Your task to perform on an android device: Search for the new ikea dresser Image 0: 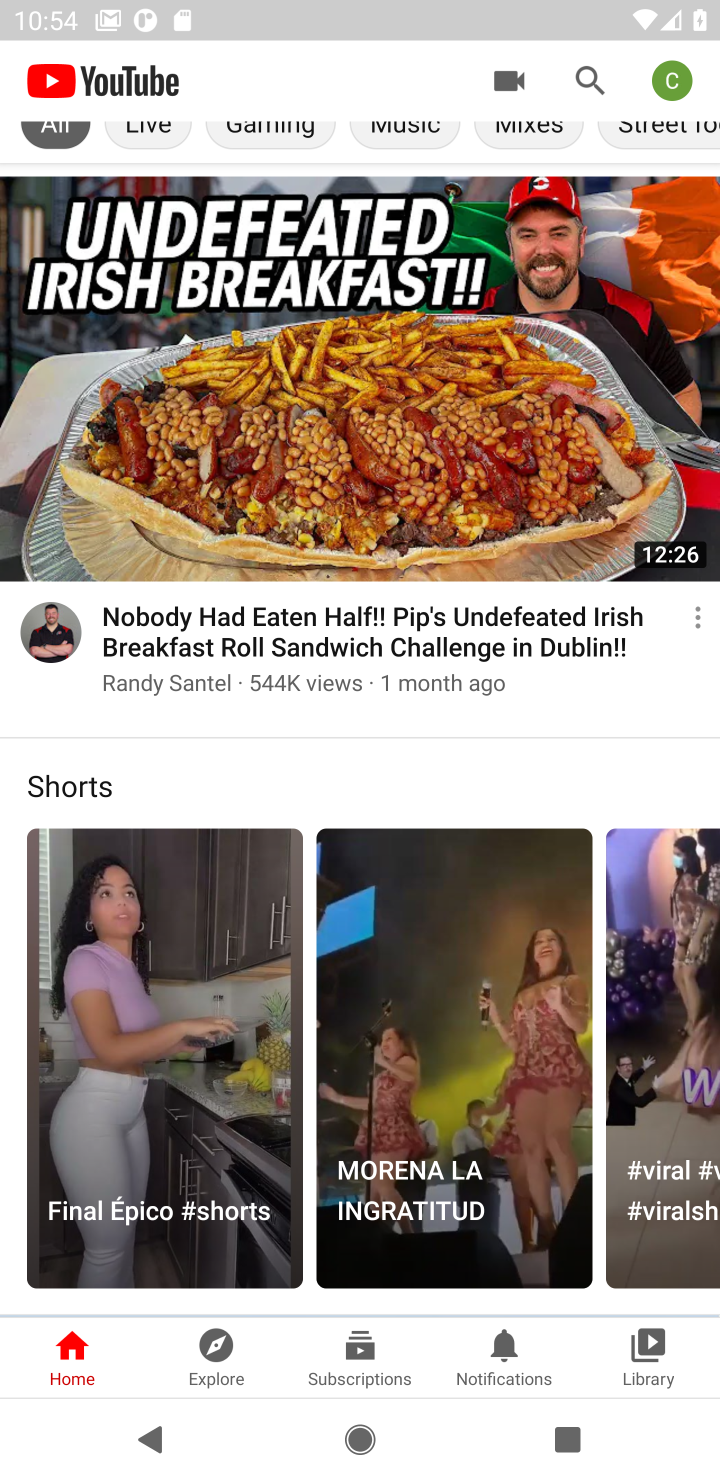
Step 0: press home button
Your task to perform on an android device: Search for the new ikea dresser Image 1: 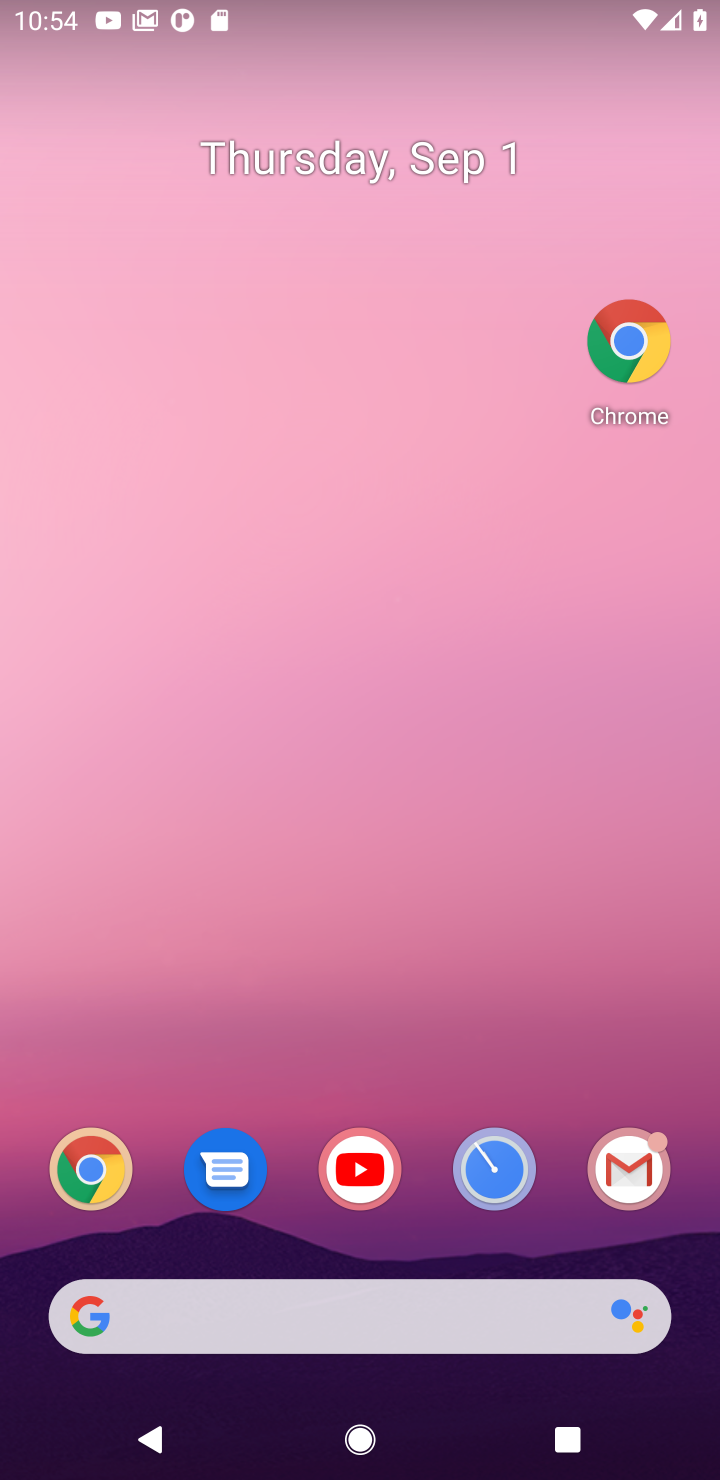
Step 1: drag from (418, 900) to (440, 93)
Your task to perform on an android device: Search for the new ikea dresser Image 2: 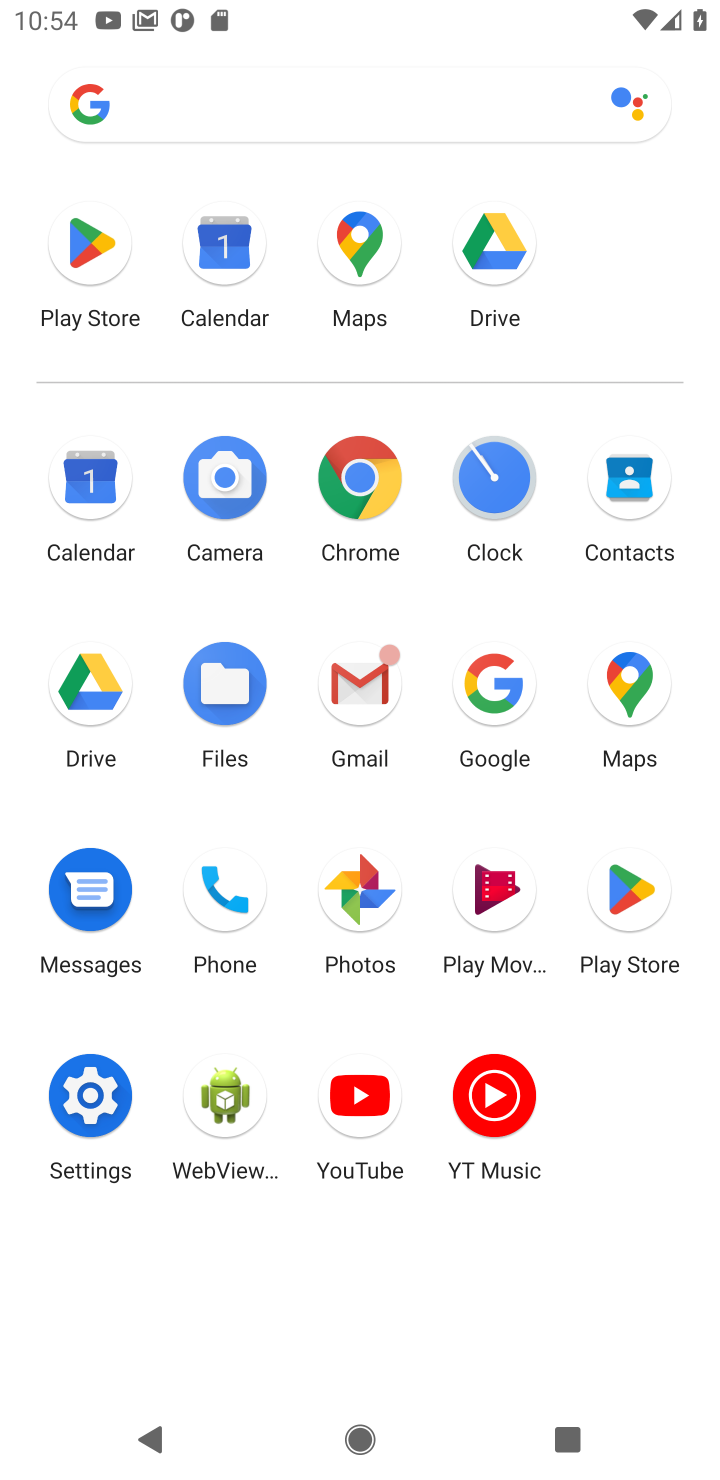
Step 2: click (359, 468)
Your task to perform on an android device: Search for the new ikea dresser Image 3: 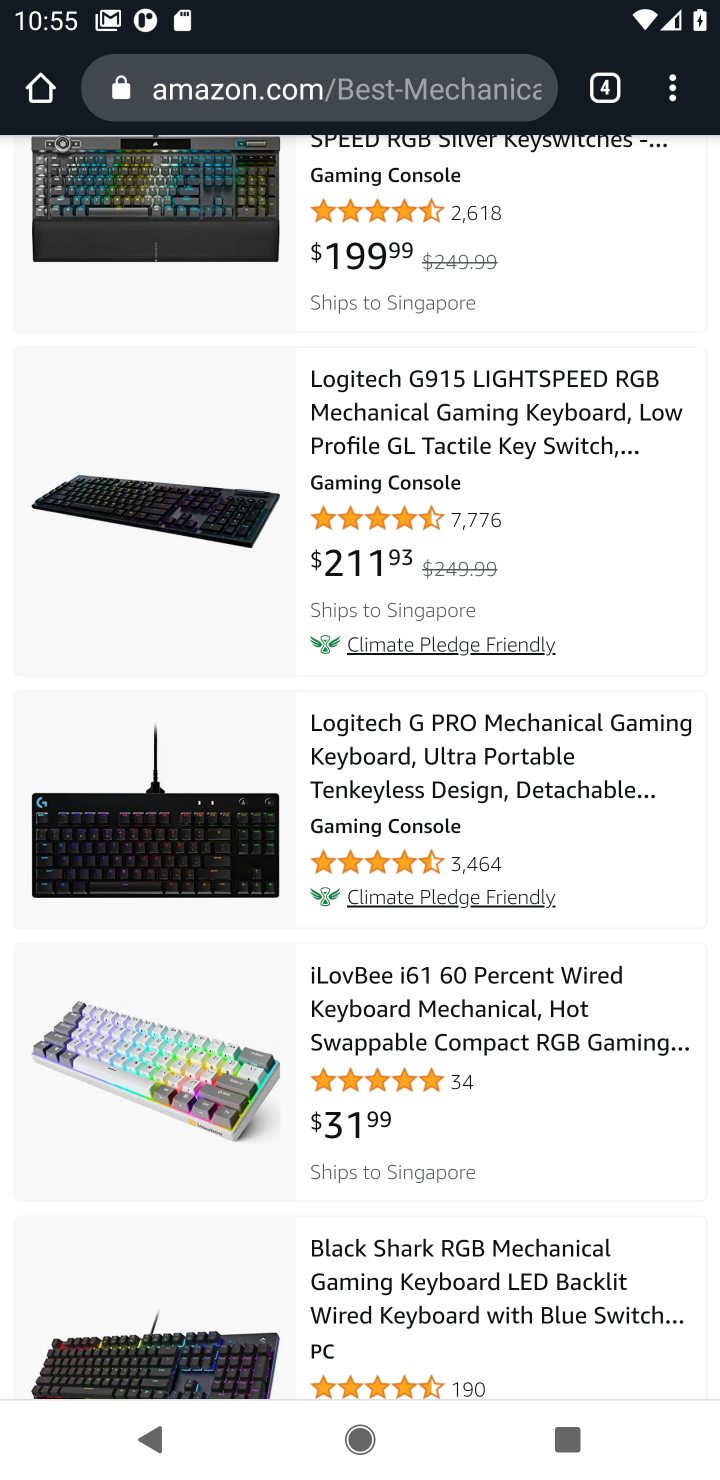
Step 3: press home button
Your task to perform on an android device: Search for the new ikea dresser Image 4: 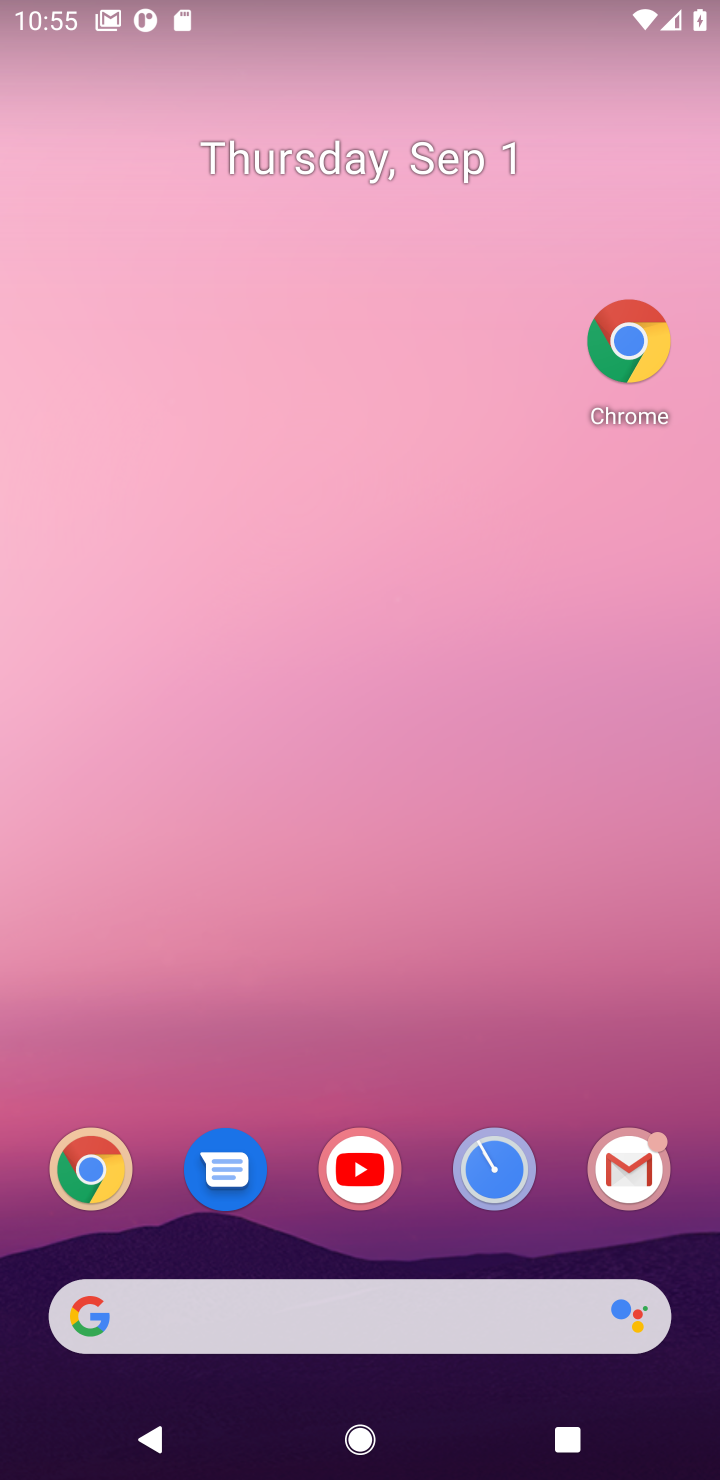
Step 4: click (624, 341)
Your task to perform on an android device: Search for the new ikea dresser Image 5: 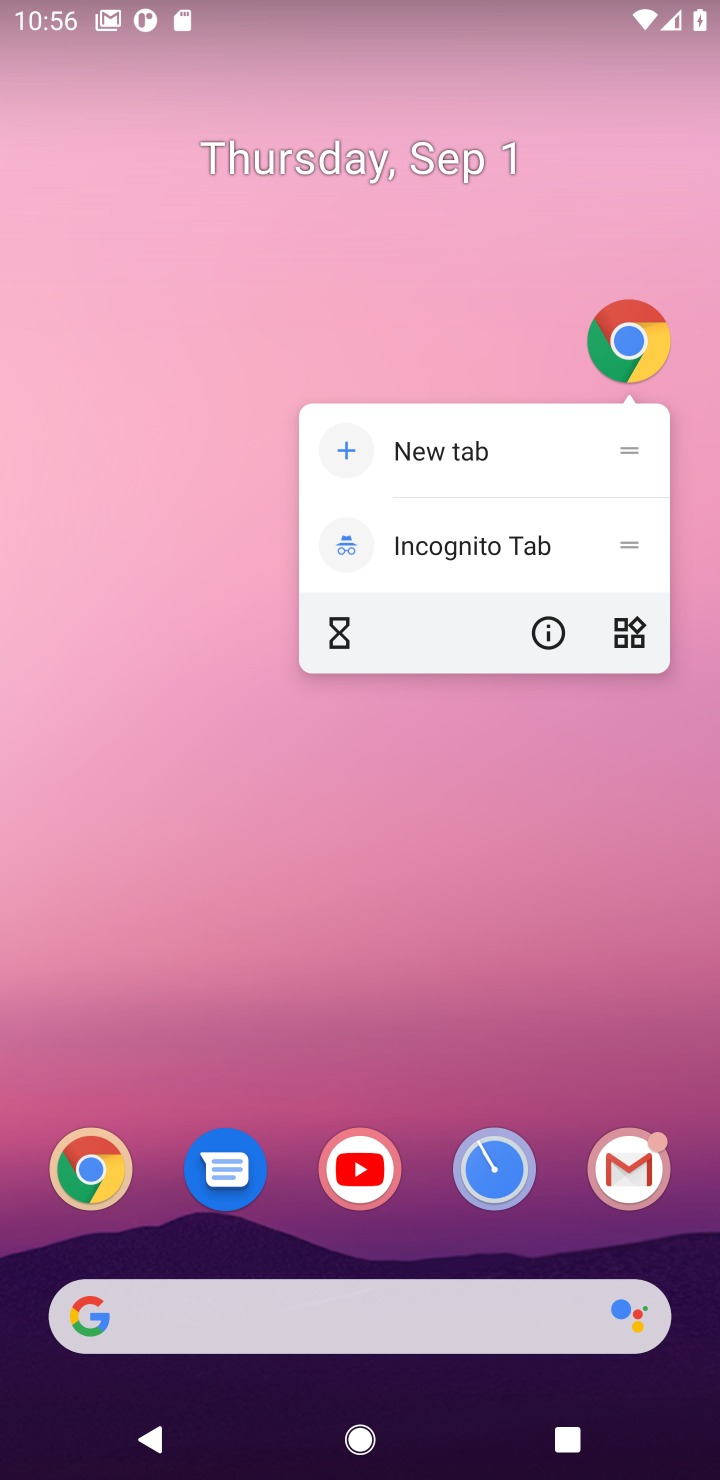
Step 5: click (415, 1013)
Your task to perform on an android device: Search for the new ikea dresser Image 6: 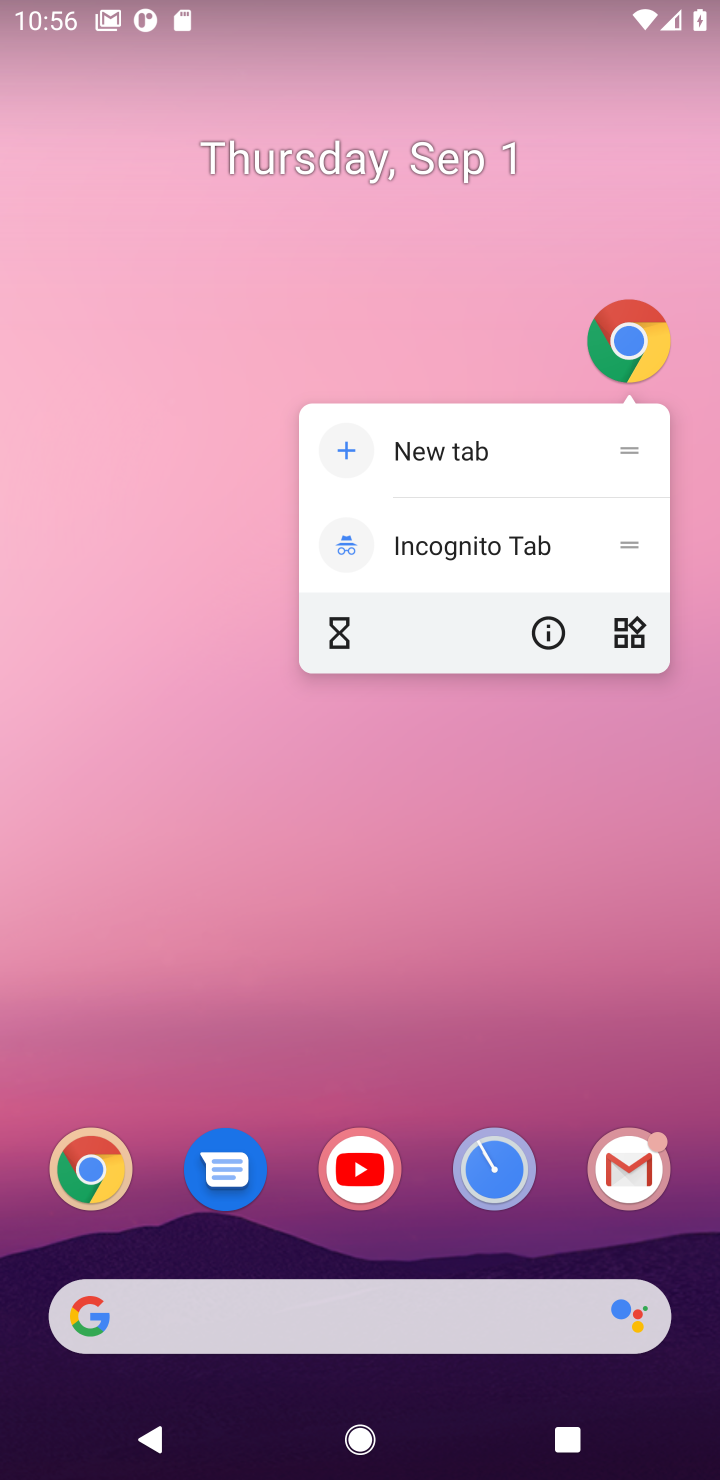
Step 6: drag from (451, 199) to (446, 11)
Your task to perform on an android device: Search for the new ikea dresser Image 7: 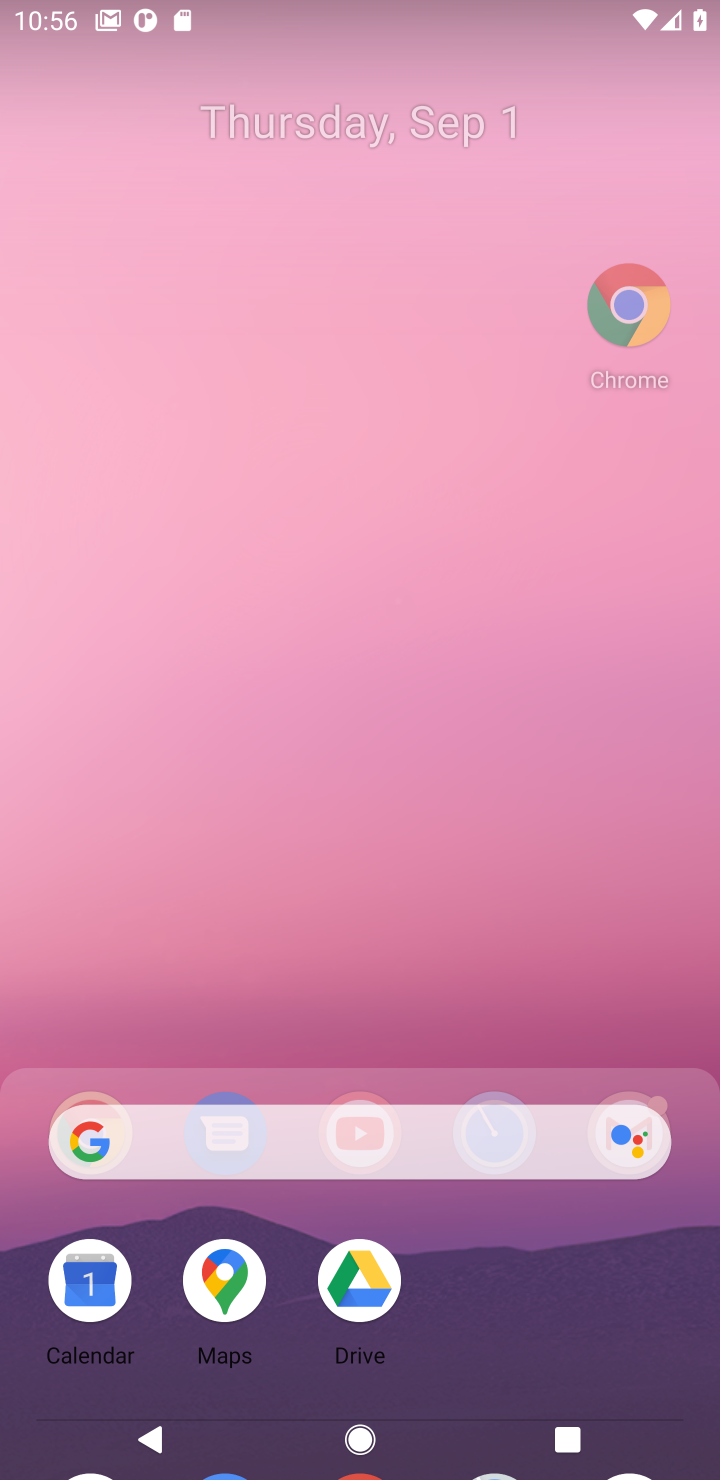
Step 7: drag from (416, 1045) to (450, 0)
Your task to perform on an android device: Search for the new ikea dresser Image 8: 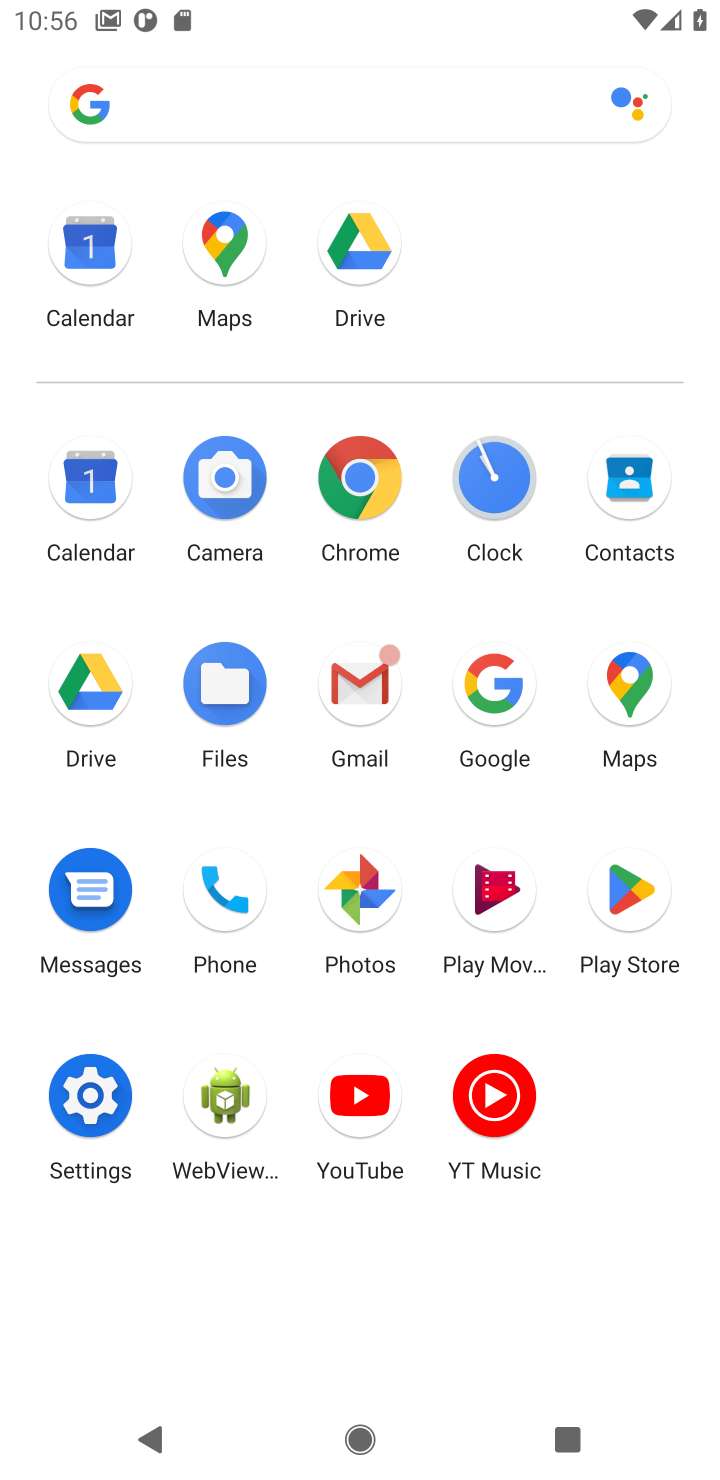
Step 8: click (371, 481)
Your task to perform on an android device: Search for the new ikea dresser Image 9: 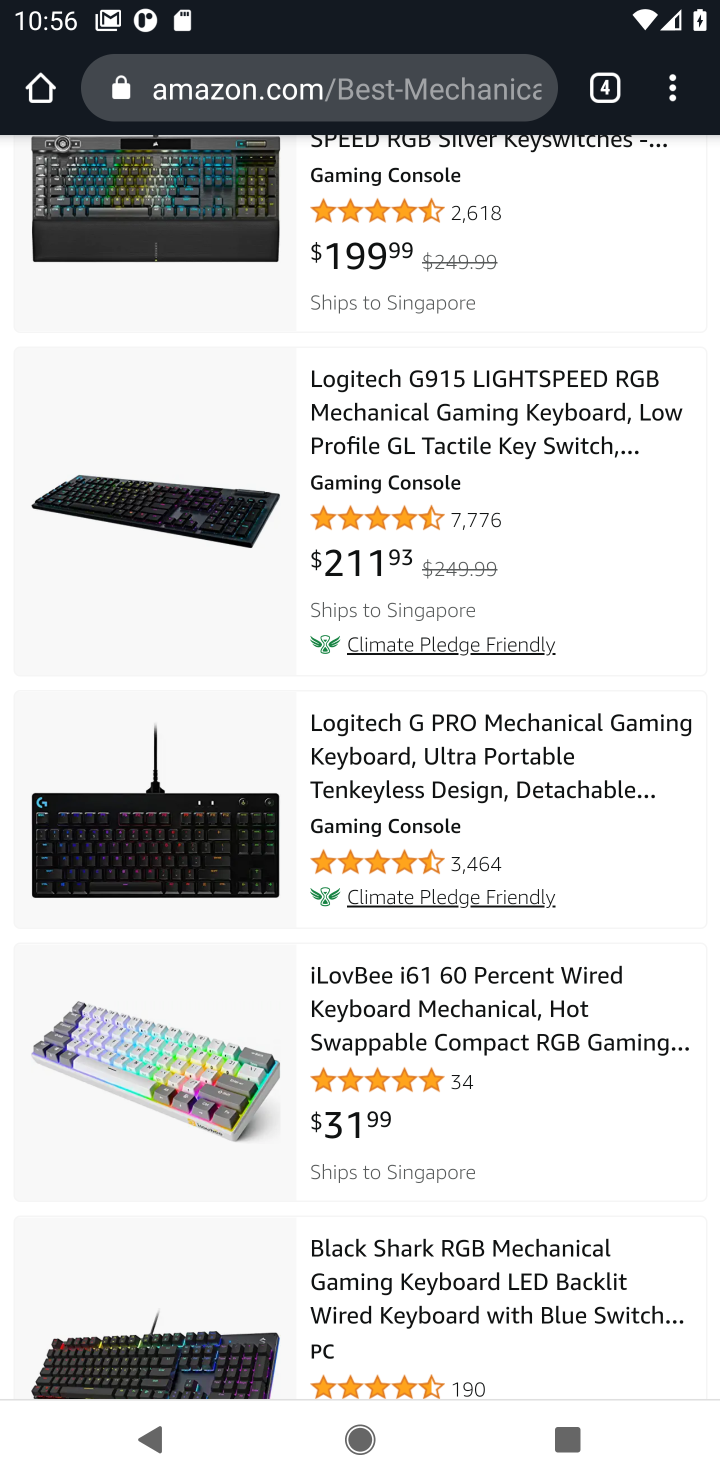
Step 9: click (596, 92)
Your task to perform on an android device: Search for the new ikea dresser Image 10: 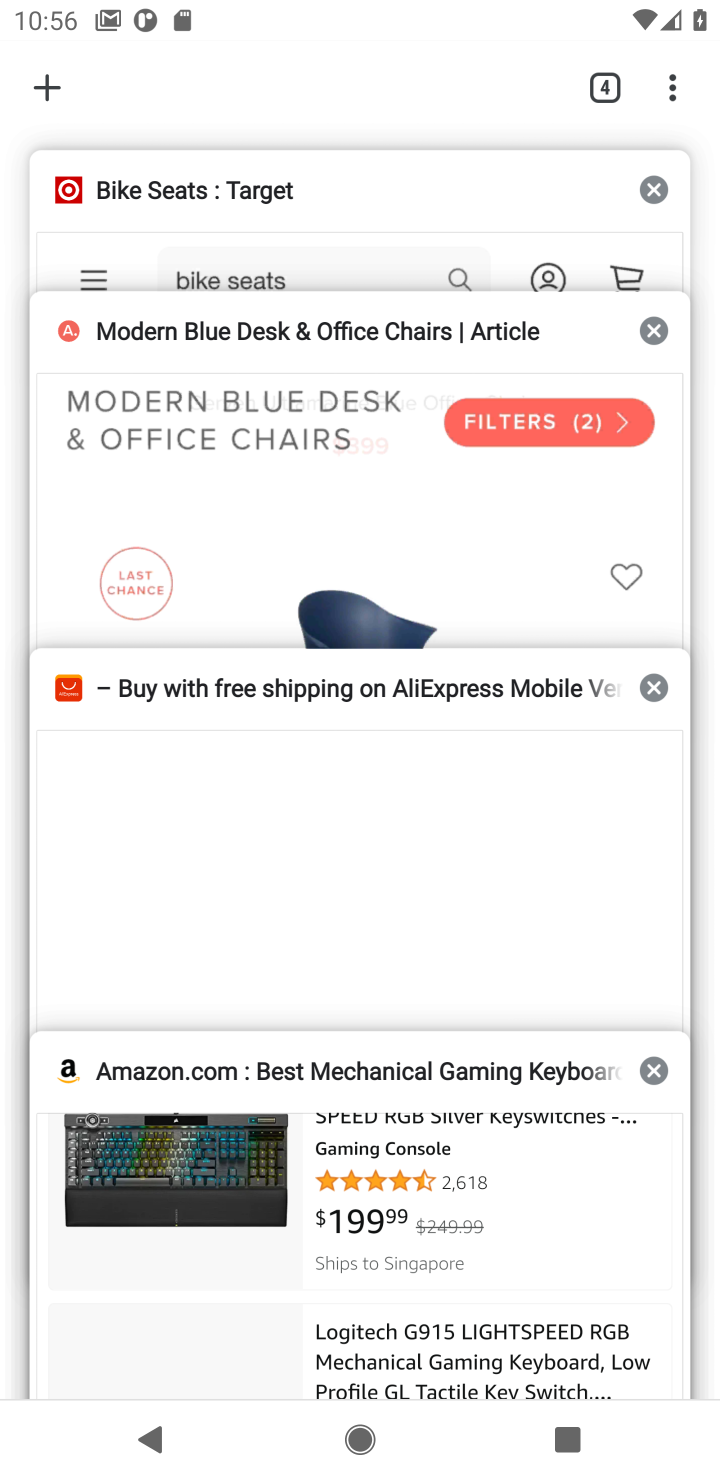
Step 10: click (663, 186)
Your task to perform on an android device: Search for the new ikea dresser Image 11: 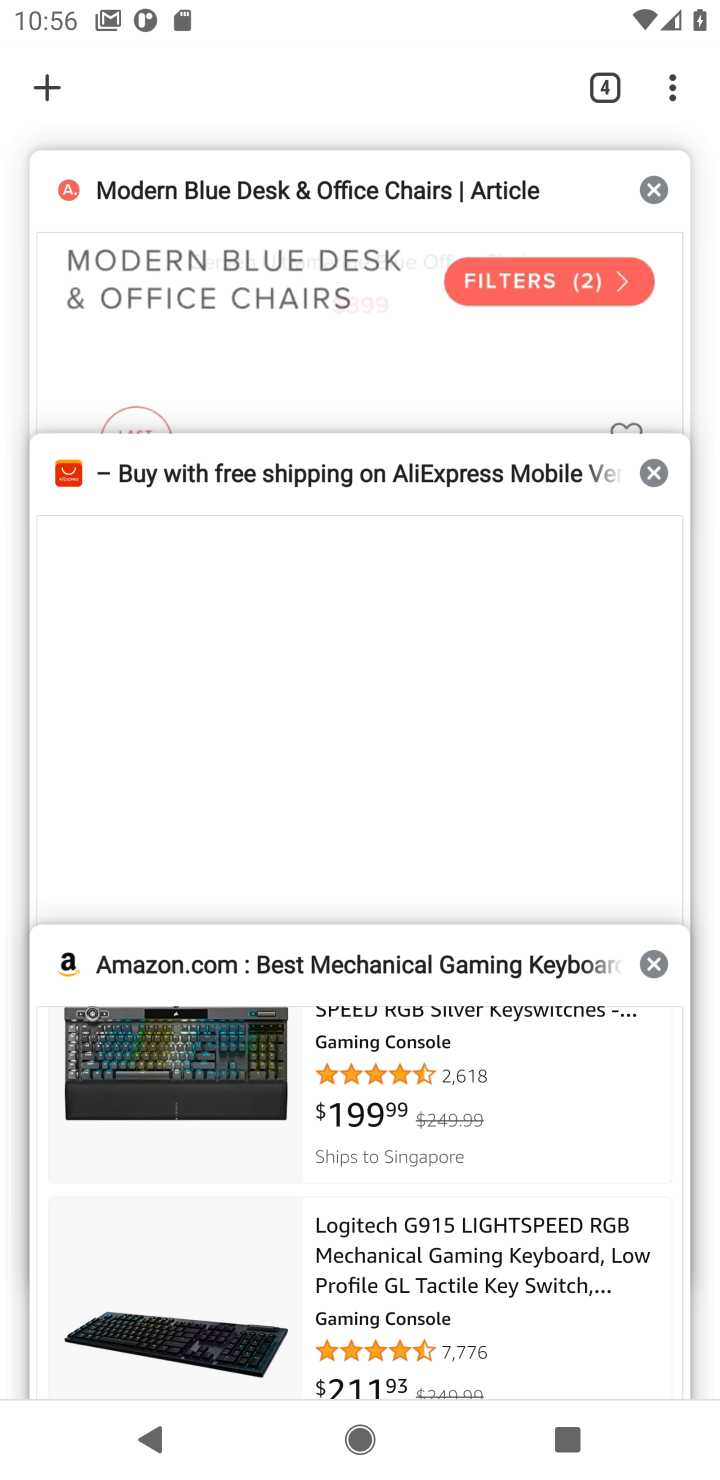
Step 11: click (661, 187)
Your task to perform on an android device: Search for the new ikea dresser Image 12: 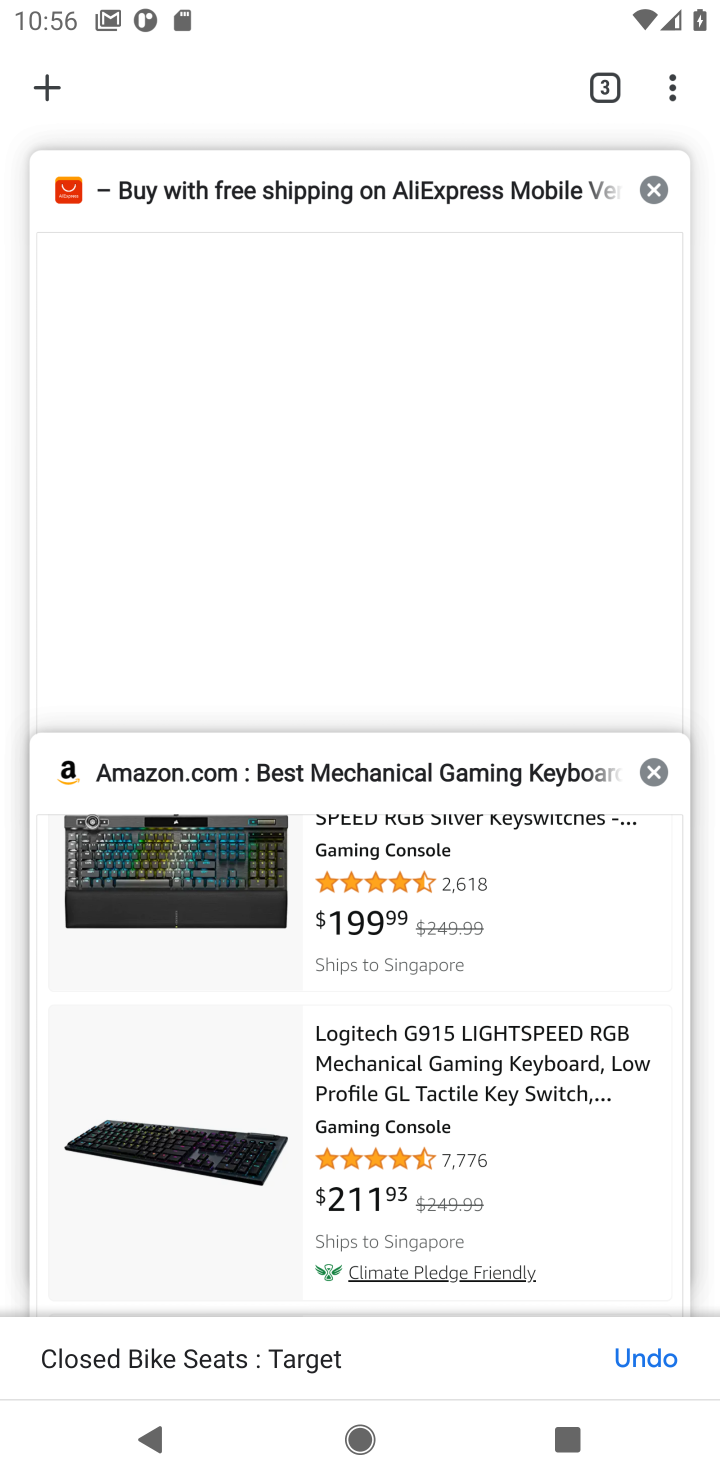
Step 12: click (661, 187)
Your task to perform on an android device: Search for the new ikea dresser Image 13: 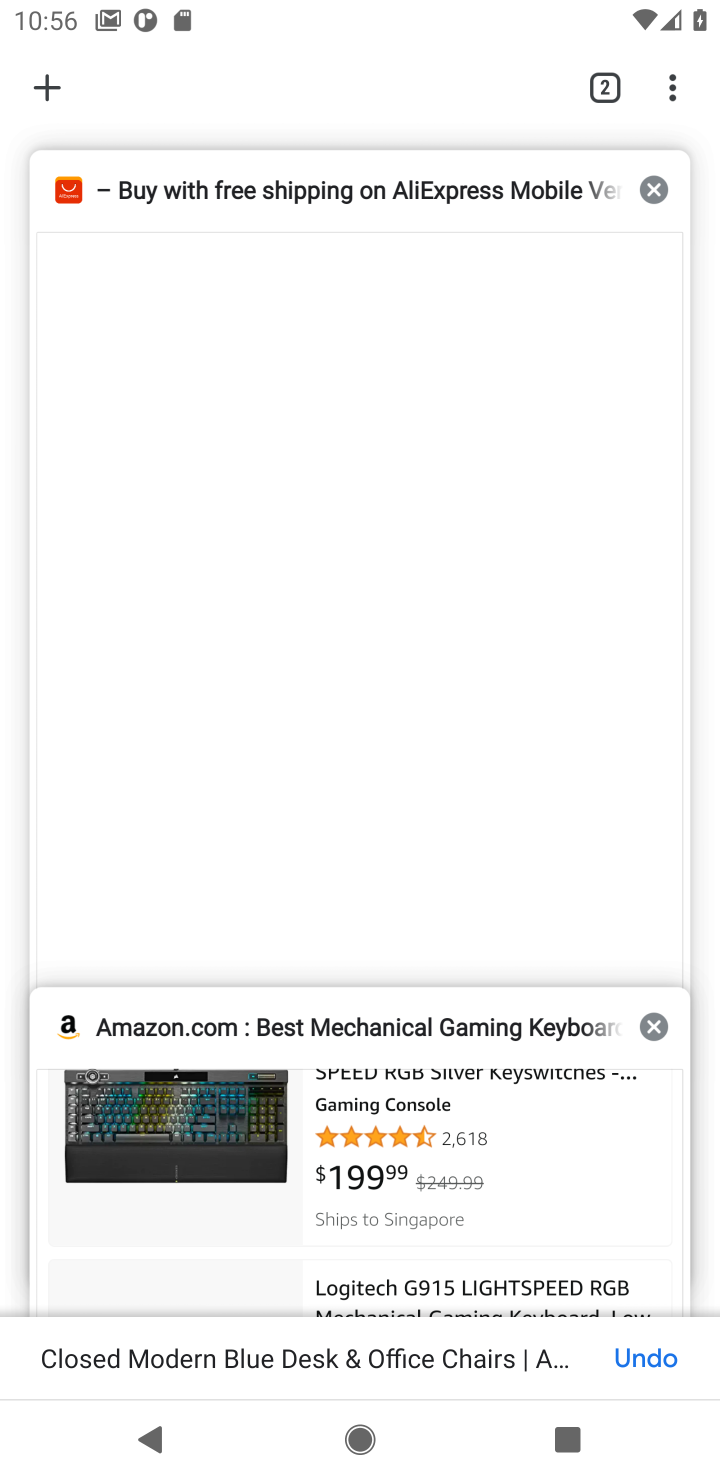
Step 13: click (661, 187)
Your task to perform on an android device: Search for the new ikea dresser Image 14: 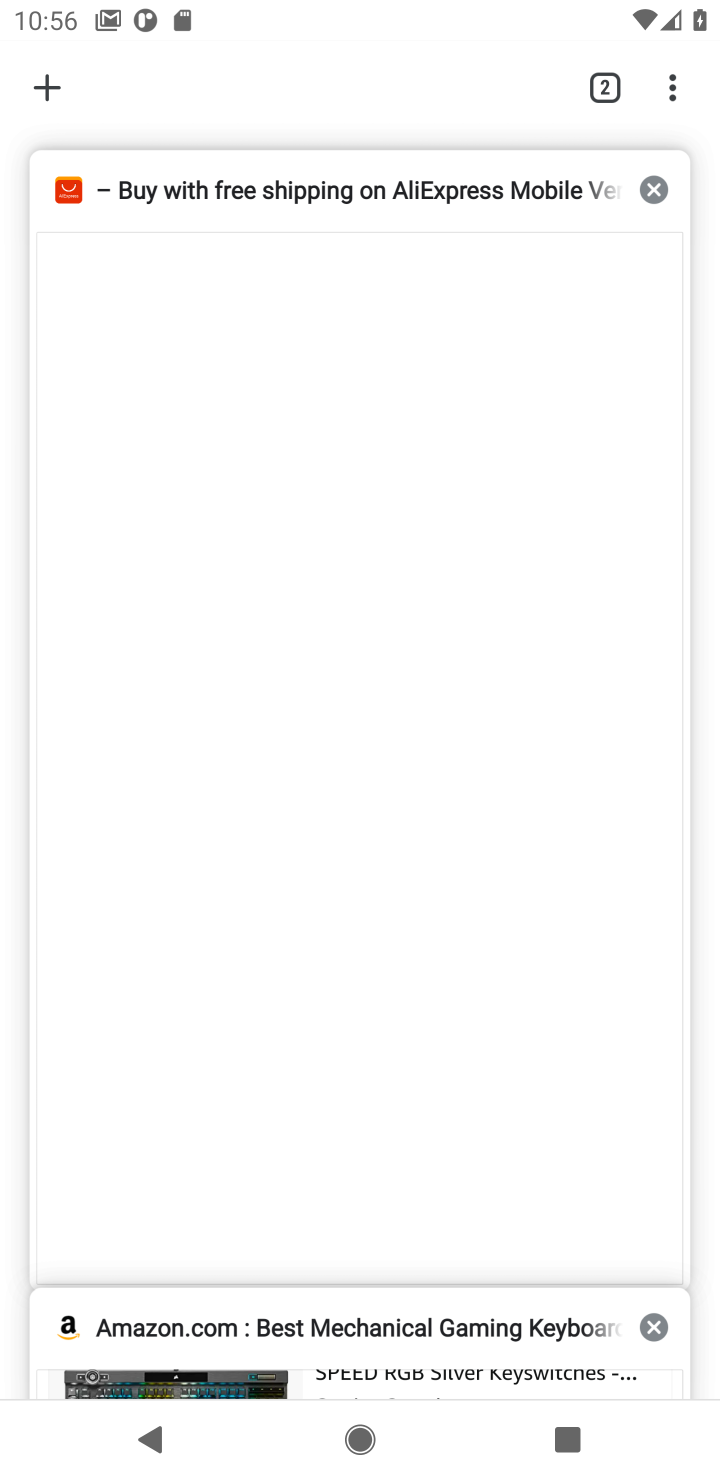
Step 14: click (661, 187)
Your task to perform on an android device: Search for the new ikea dresser Image 15: 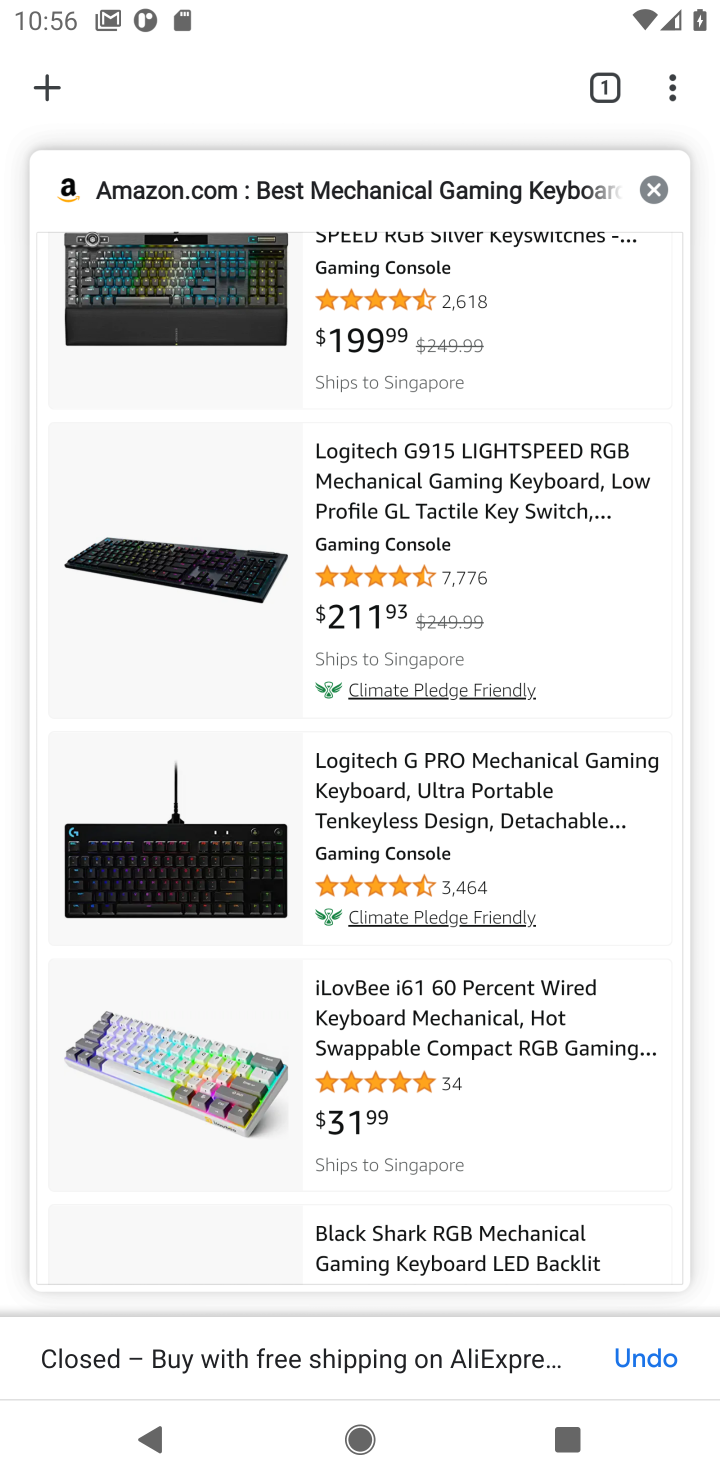
Step 15: click (649, 326)
Your task to perform on an android device: Search for the new ikea dresser Image 16: 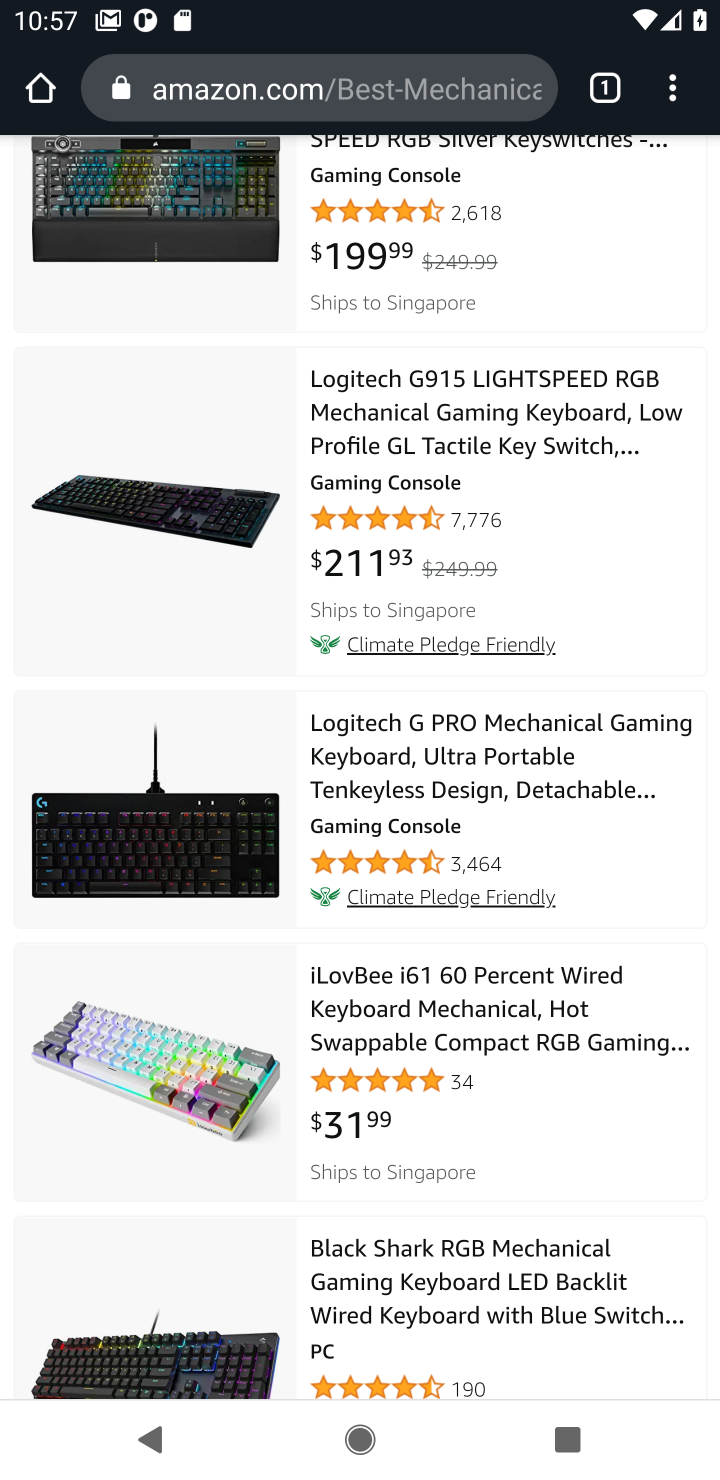
Step 16: click (448, 94)
Your task to perform on an android device: Search for the new ikea dresser Image 17: 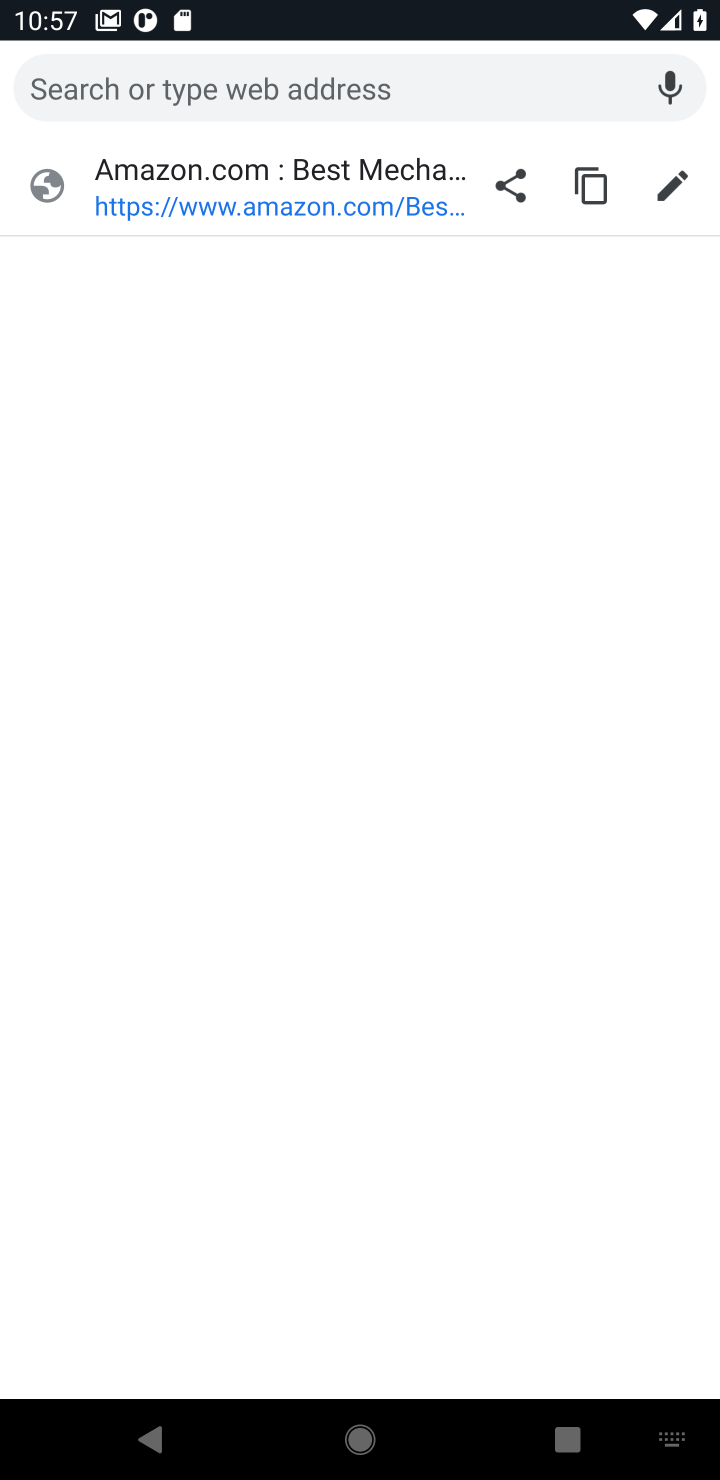
Step 17: type "new ikea dresser"
Your task to perform on an android device: Search for the new ikea dresser Image 18: 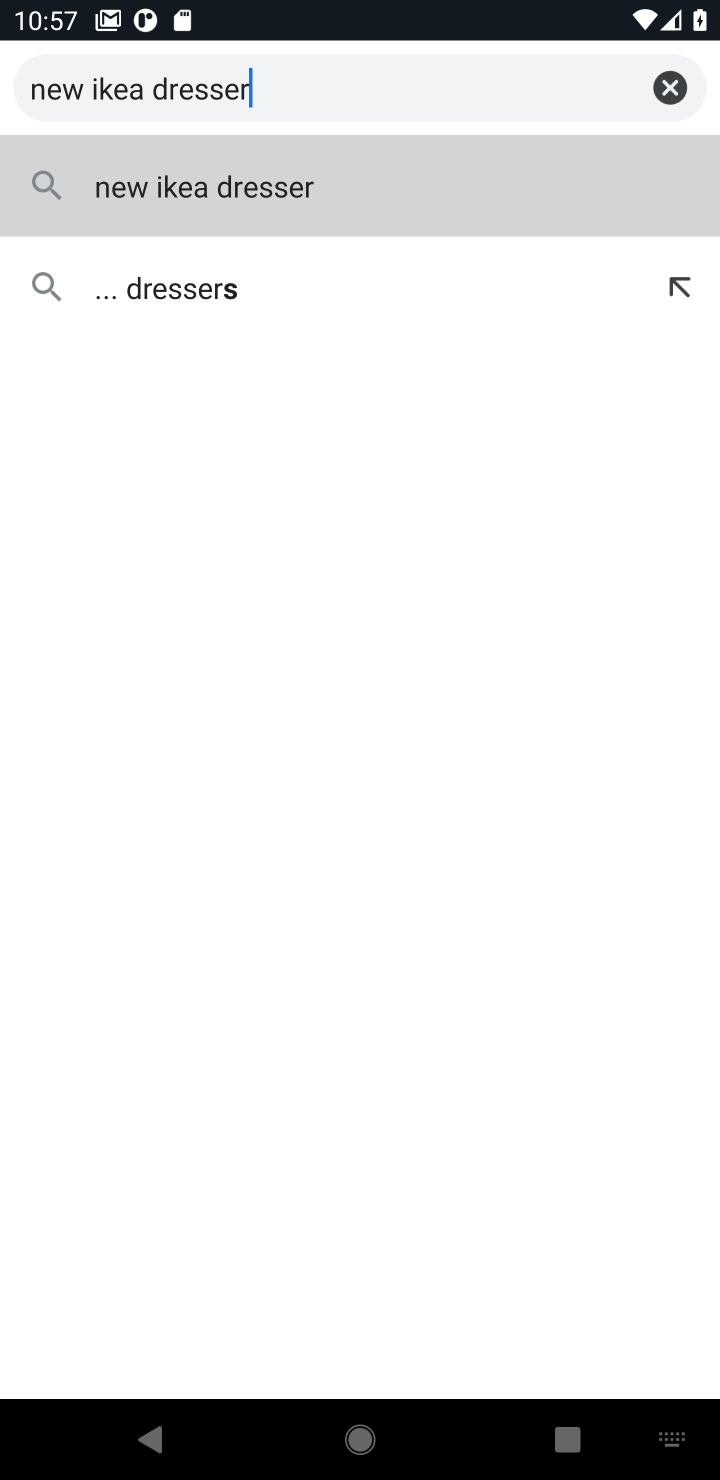
Step 18: type "new ikea dresser"
Your task to perform on an android device: Search for the new ikea dresser Image 19: 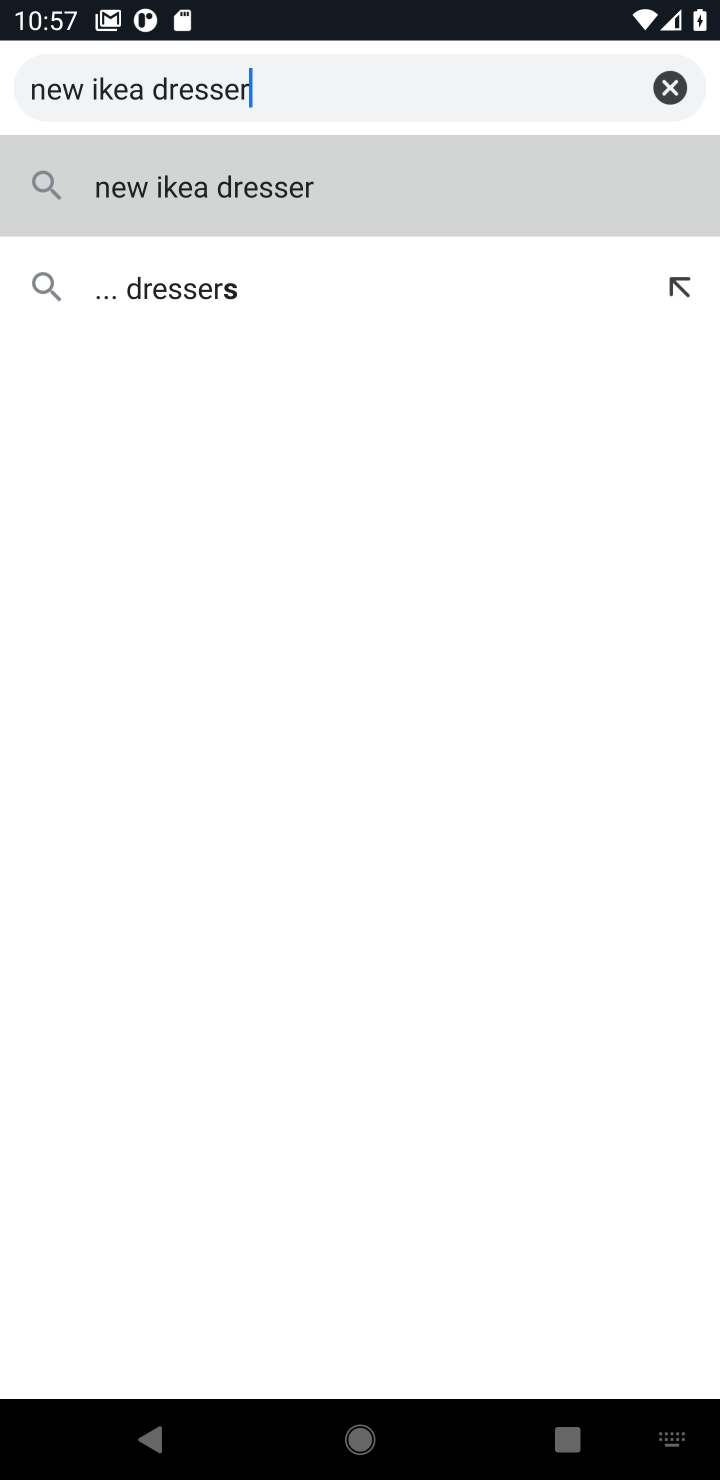
Step 19: click (677, 84)
Your task to perform on an android device: Search for the new ikea dresser Image 20: 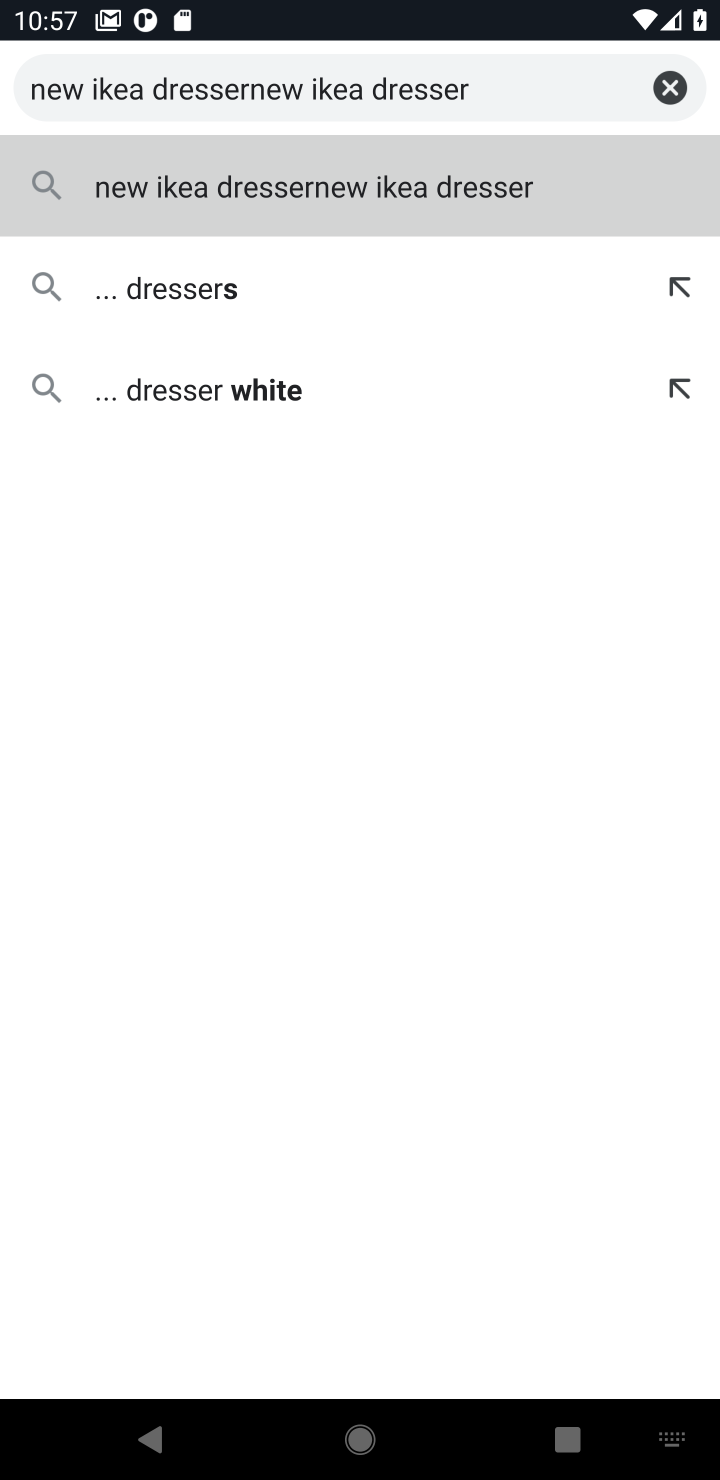
Step 20: click (672, 84)
Your task to perform on an android device: Search for the new ikea dresser Image 21: 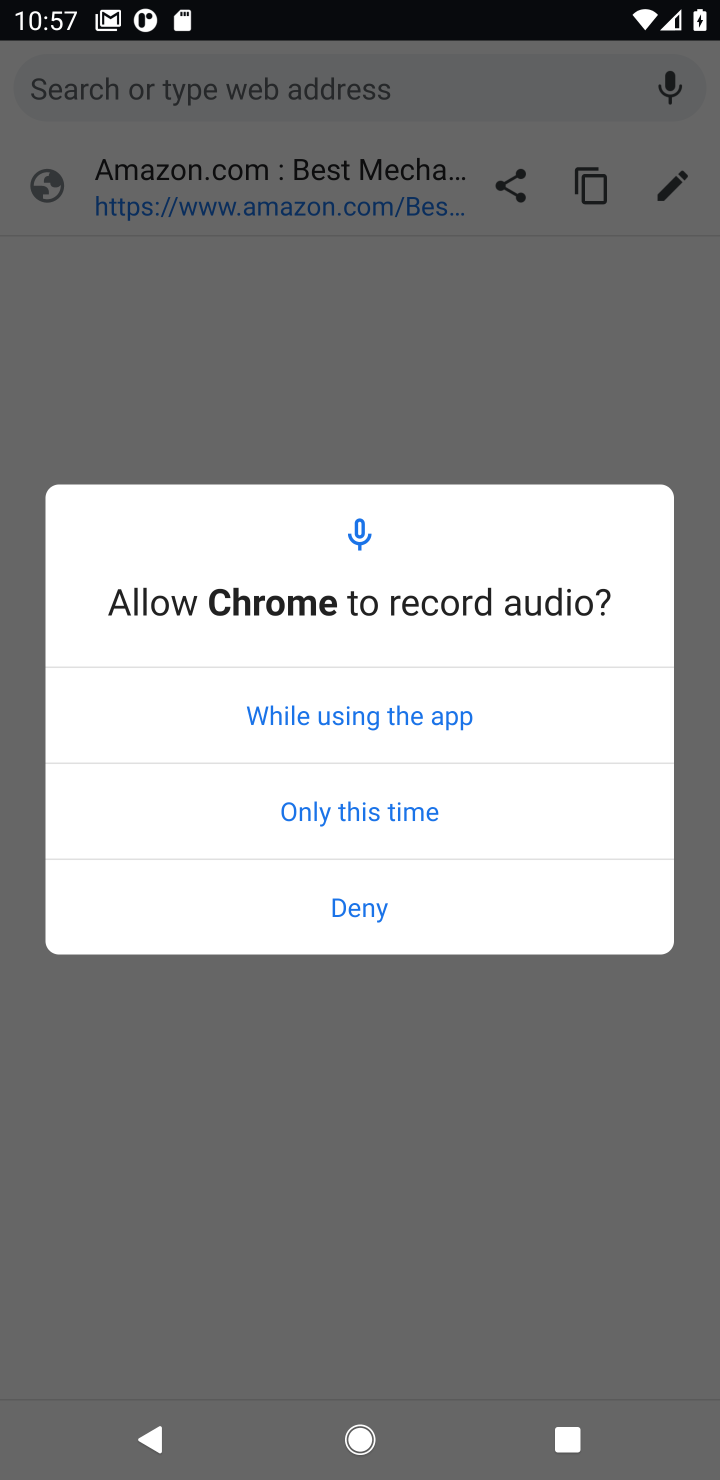
Step 21: click (308, 378)
Your task to perform on an android device: Search for the new ikea dresser Image 22: 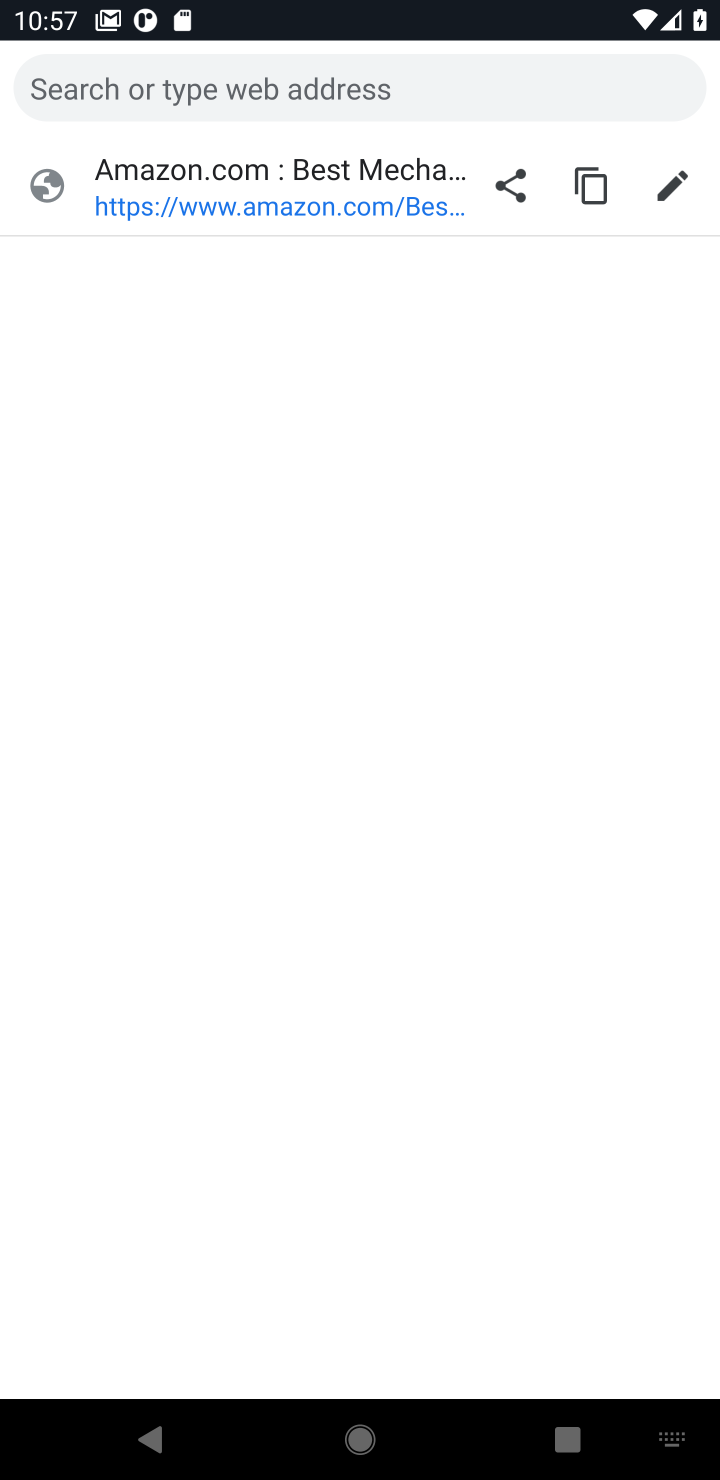
Step 22: type "new ikea dresser"
Your task to perform on an android device: Search for the new ikea dresser Image 23: 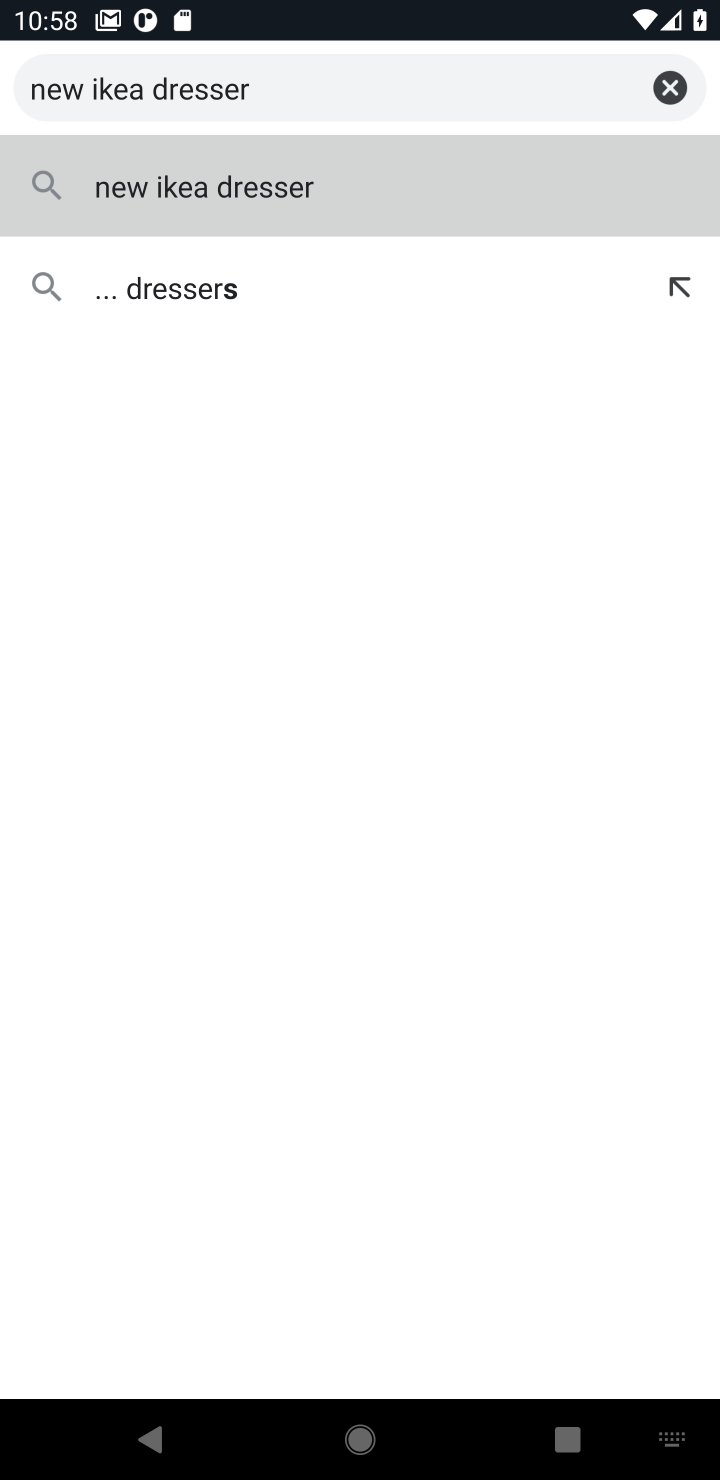
Step 23: click (178, 200)
Your task to perform on an android device: Search for the new ikea dresser Image 24: 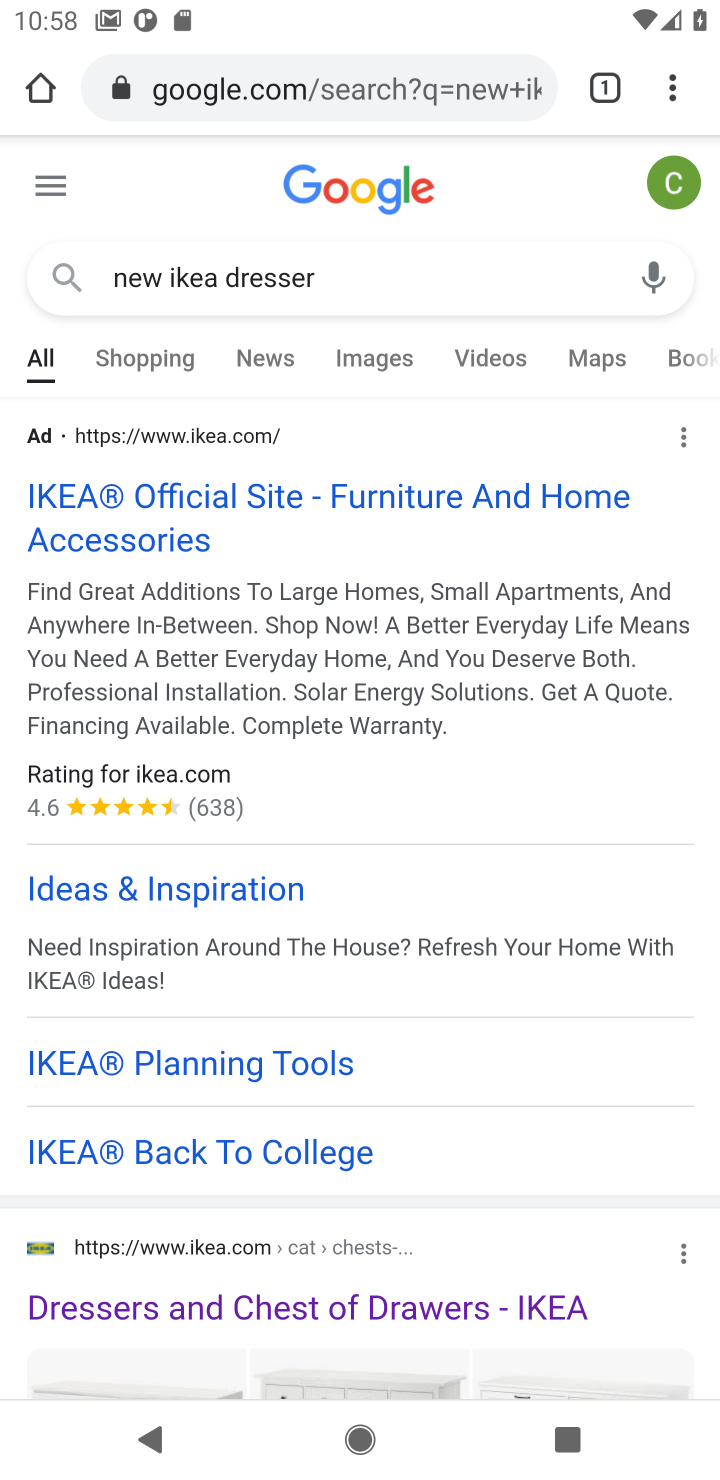
Step 24: click (375, 1314)
Your task to perform on an android device: Search for the new ikea dresser Image 25: 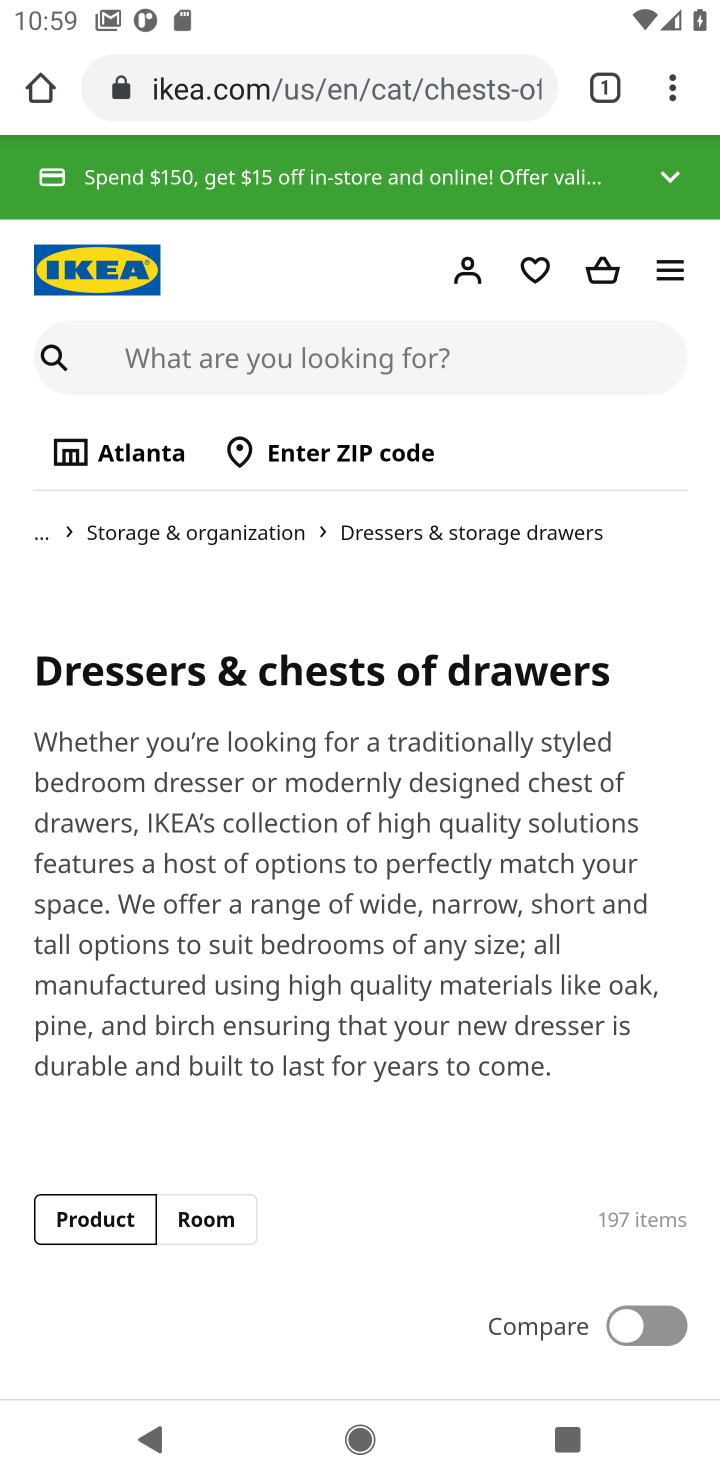
Step 25: task complete